Your task to perform on an android device: Go to display settings Image 0: 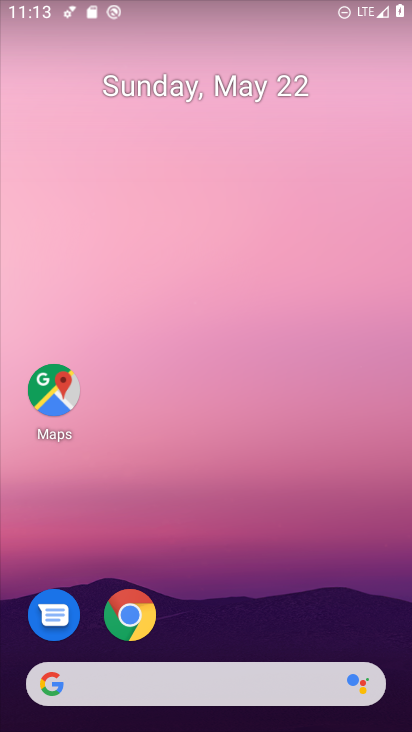
Step 0: drag from (223, 595) to (232, 124)
Your task to perform on an android device: Go to display settings Image 1: 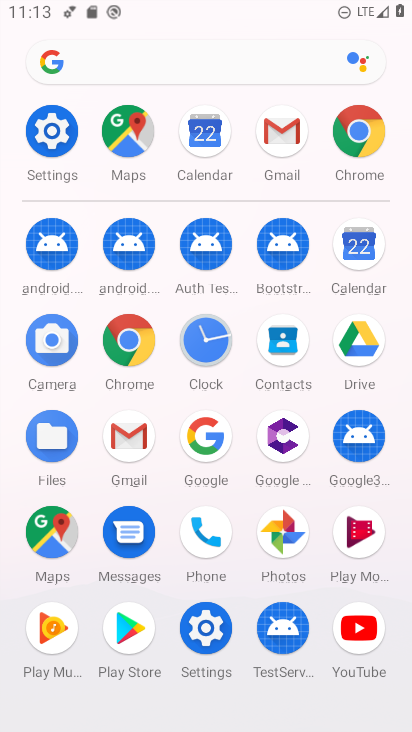
Step 1: click (53, 114)
Your task to perform on an android device: Go to display settings Image 2: 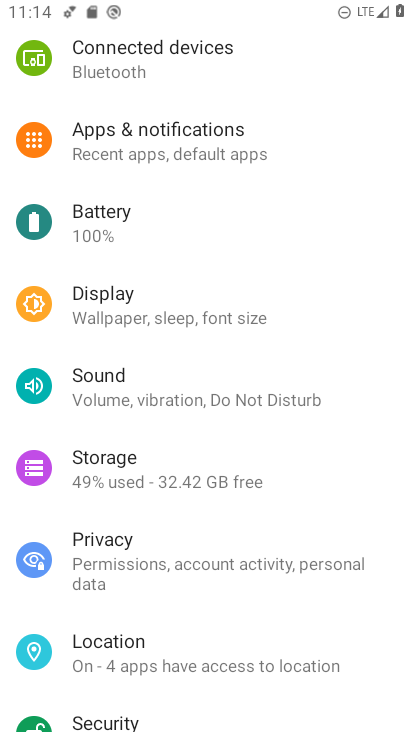
Step 2: click (109, 236)
Your task to perform on an android device: Go to display settings Image 3: 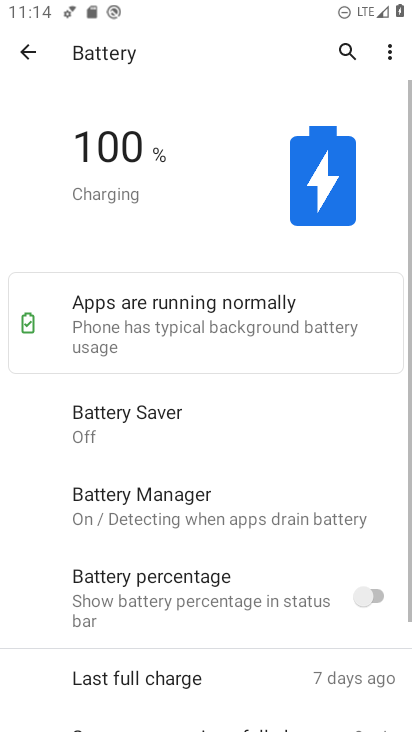
Step 3: click (38, 59)
Your task to perform on an android device: Go to display settings Image 4: 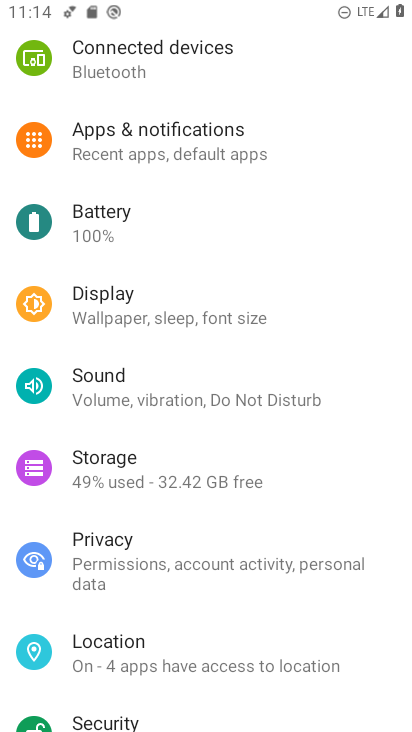
Step 4: click (125, 298)
Your task to perform on an android device: Go to display settings Image 5: 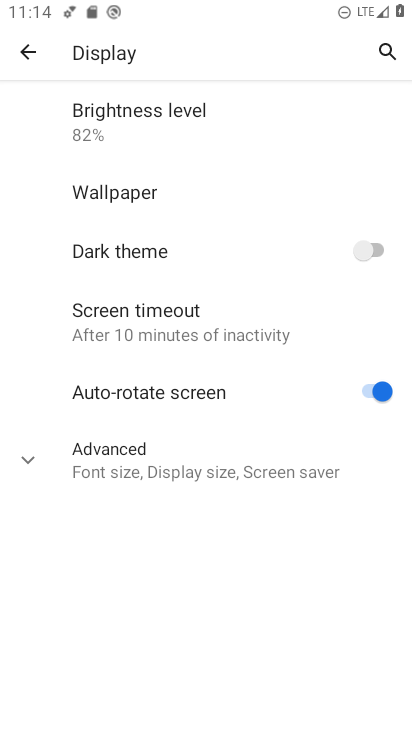
Step 5: task complete